Your task to perform on an android device: manage bookmarks in the chrome app Image 0: 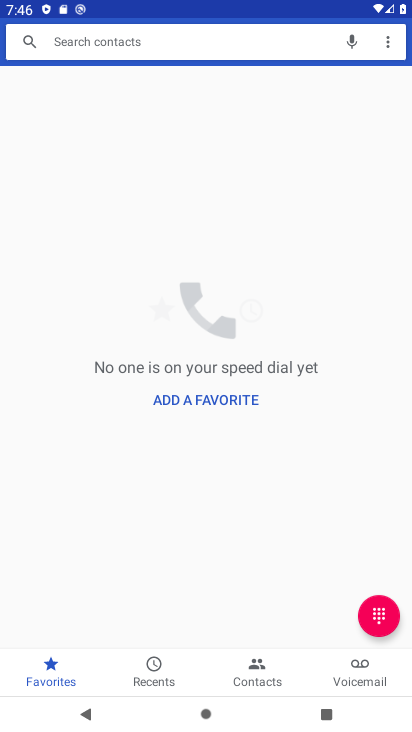
Step 0: press home button
Your task to perform on an android device: manage bookmarks in the chrome app Image 1: 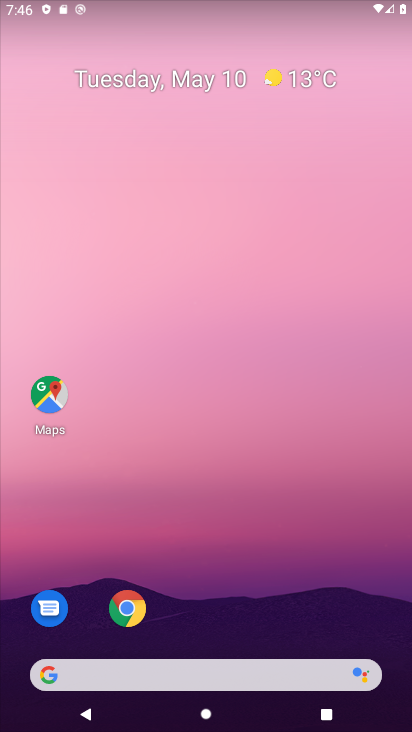
Step 1: click (131, 616)
Your task to perform on an android device: manage bookmarks in the chrome app Image 2: 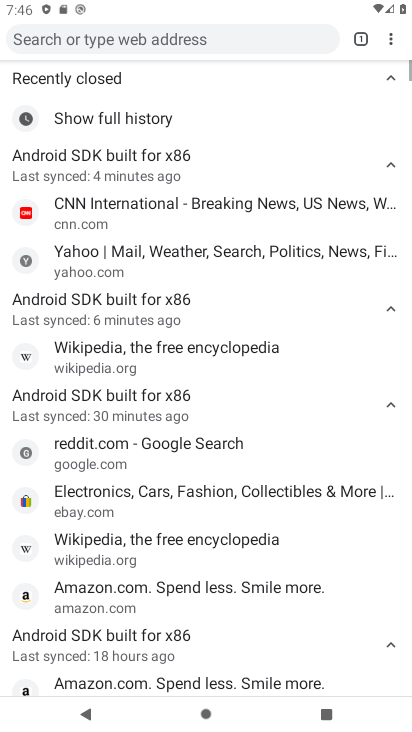
Step 2: drag from (388, 39) to (282, 150)
Your task to perform on an android device: manage bookmarks in the chrome app Image 3: 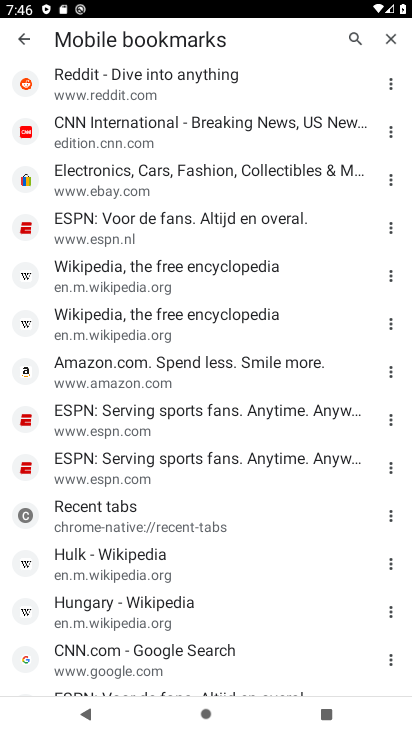
Step 3: click (389, 132)
Your task to perform on an android device: manage bookmarks in the chrome app Image 4: 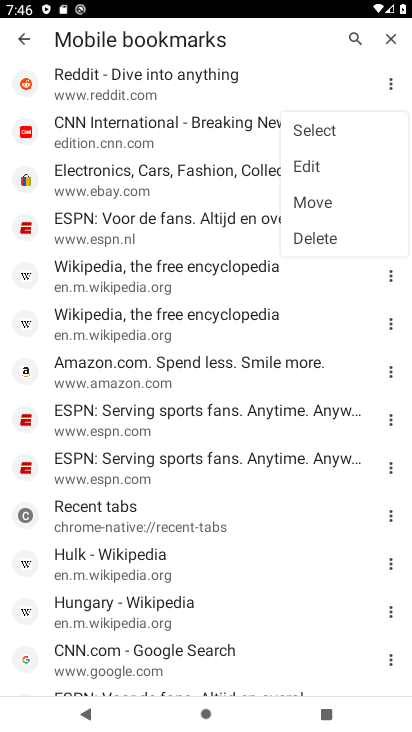
Step 4: click (333, 235)
Your task to perform on an android device: manage bookmarks in the chrome app Image 5: 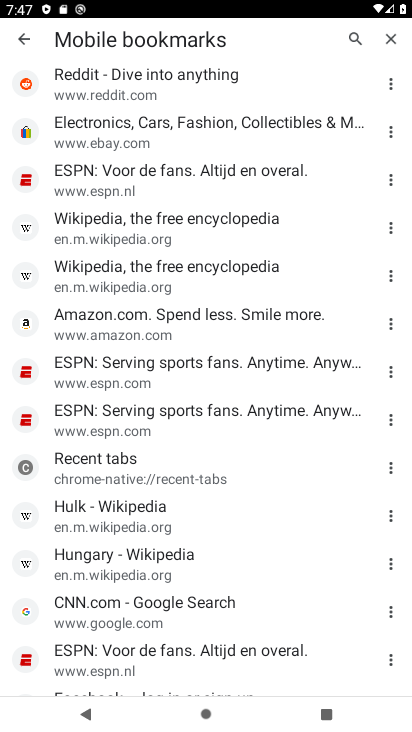
Step 5: task complete